Your task to perform on an android device: turn on javascript in the chrome app Image 0: 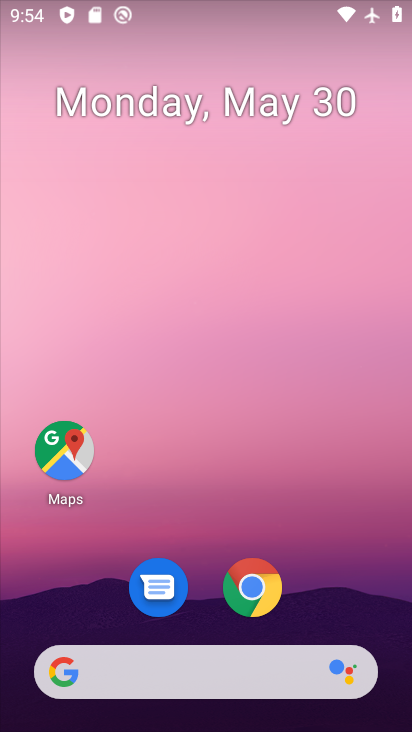
Step 0: drag from (303, 400) to (260, 47)
Your task to perform on an android device: turn on javascript in the chrome app Image 1: 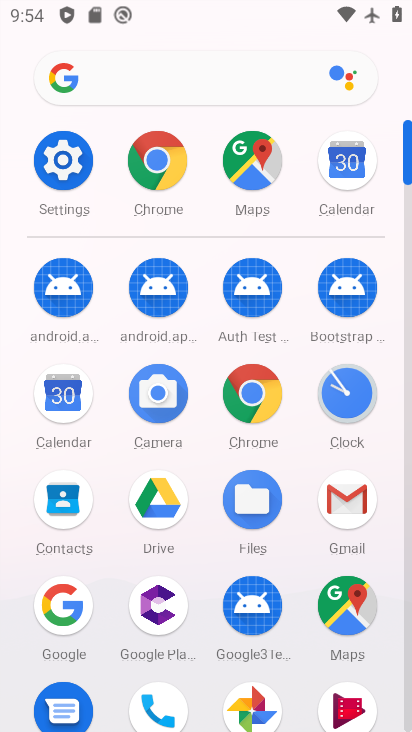
Step 1: click (250, 393)
Your task to perform on an android device: turn on javascript in the chrome app Image 2: 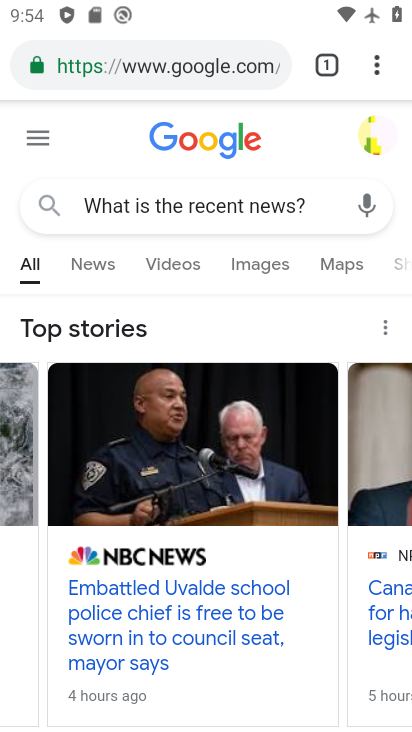
Step 2: drag from (377, 58) to (153, 625)
Your task to perform on an android device: turn on javascript in the chrome app Image 3: 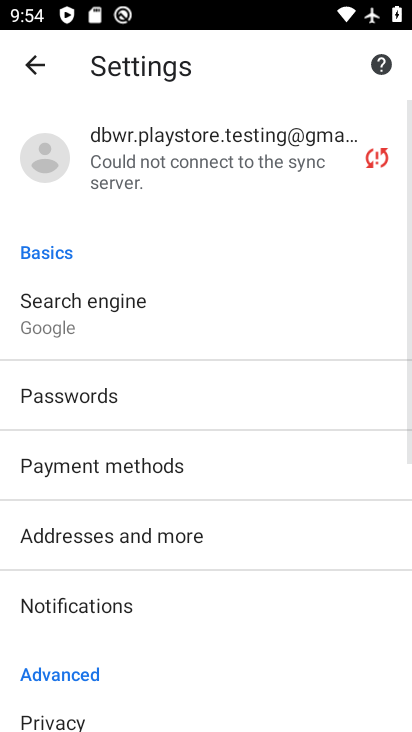
Step 3: drag from (208, 648) to (237, 252)
Your task to perform on an android device: turn on javascript in the chrome app Image 4: 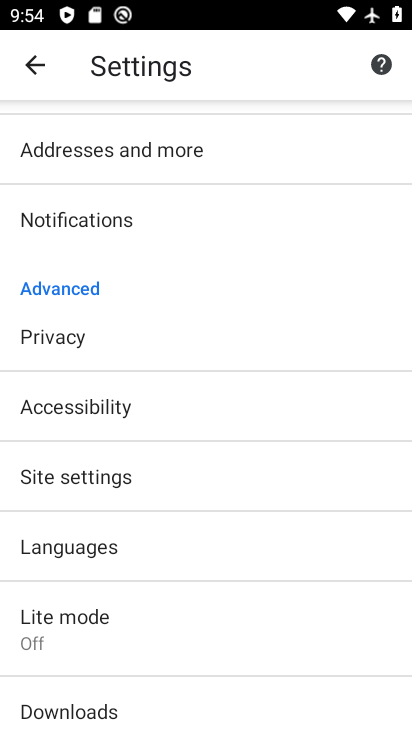
Step 4: click (135, 479)
Your task to perform on an android device: turn on javascript in the chrome app Image 5: 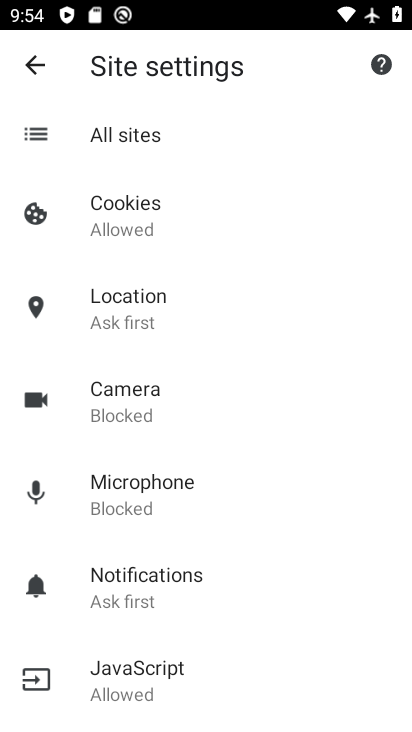
Step 5: click (181, 671)
Your task to perform on an android device: turn on javascript in the chrome app Image 6: 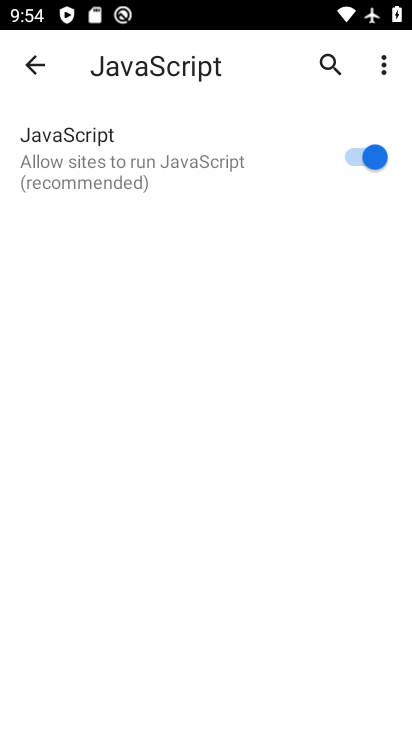
Step 6: task complete